Your task to perform on an android device: Open the map Image 0: 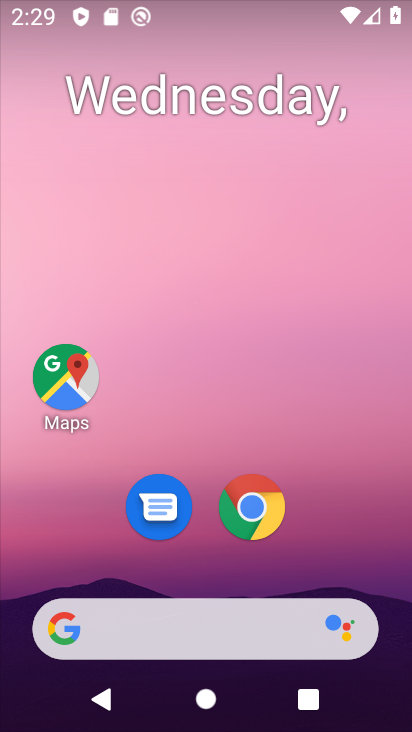
Step 0: click (57, 370)
Your task to perform on an android device: Open the map Image 1: 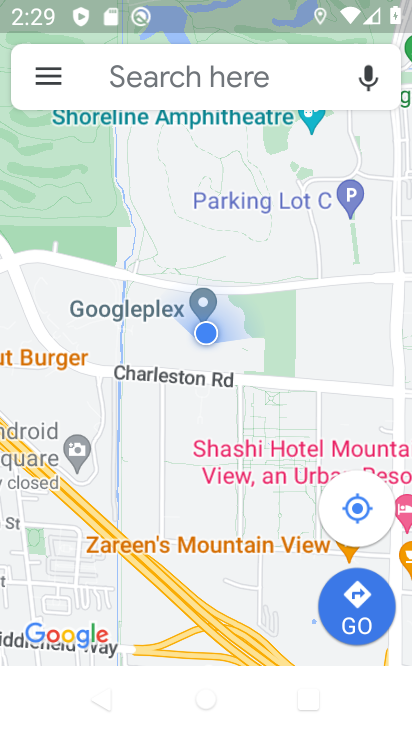
Step 1: task complete